Your task to perform on an android device: turn off location history Image 0: 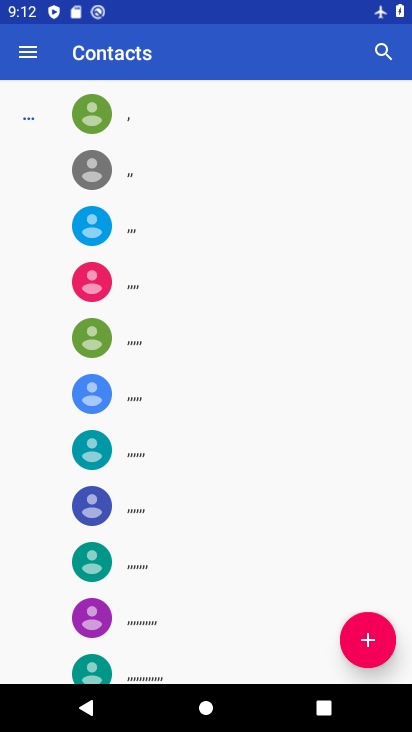
Step 0: press home button
Your task to perform on an android device: turn off location history Image 1: 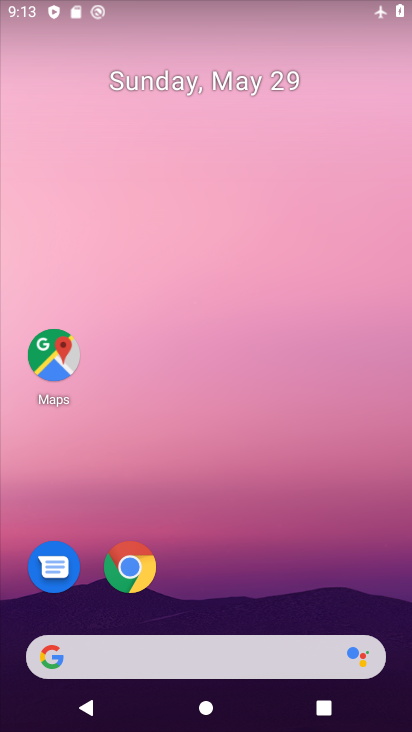
Step 1: click (54, 356)
Your task to perform on an android device: turn off location history Image 2: 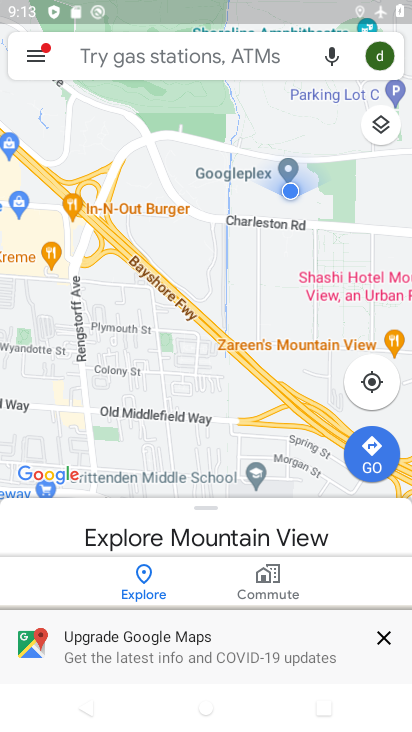
Step 2: click (36, 51)
Your task to perform on an android device: turn off location history Image 3: 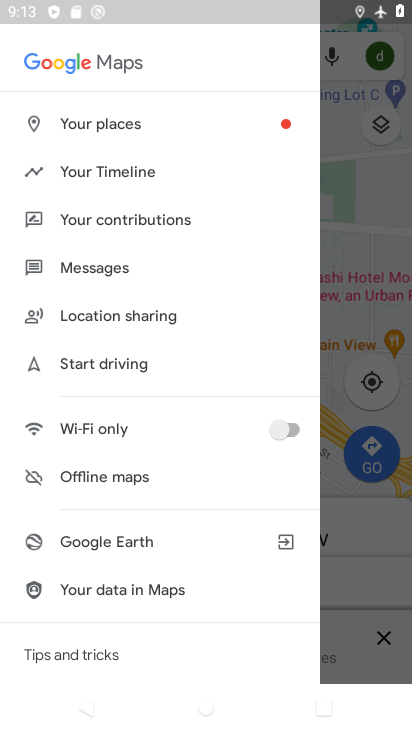
Step 3: drag from (176, 640) to (221, 188)
Your task to perform on an android device: turn off location history Image 4: 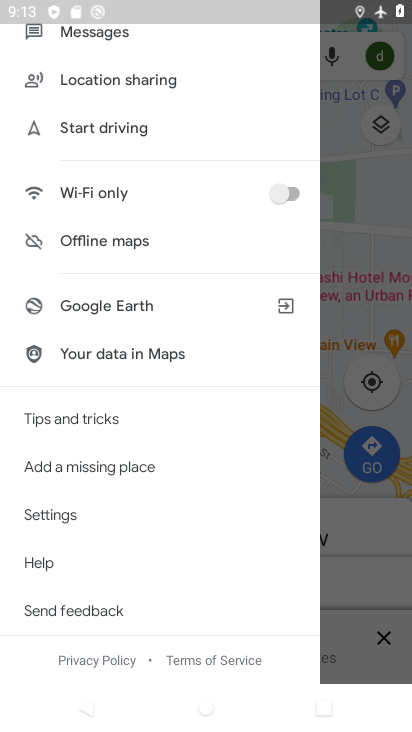
Step 4: click (55, 513)
Your task to perform on an android device: turn off location history Image 5: 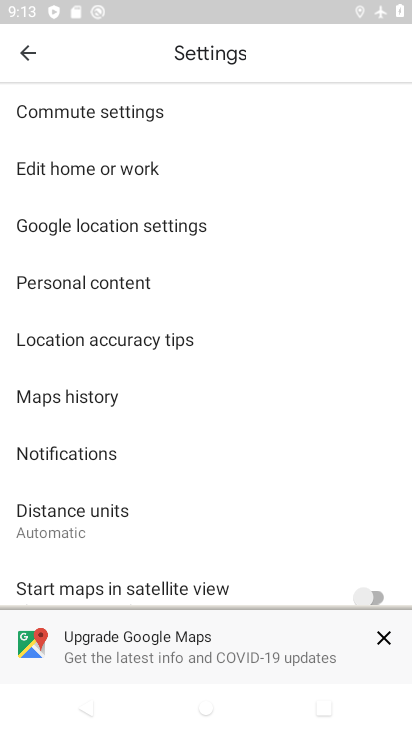
Step 5: click (69, 283)
Your task to perform on an android device: turn off location history Image 6: 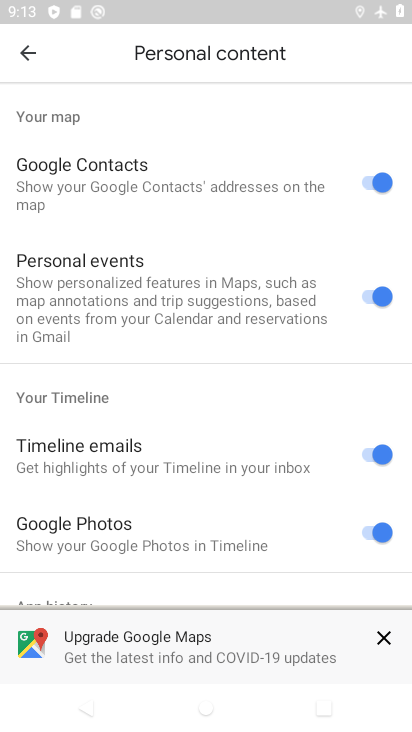
Step 6: task complete